Your task to perform on an android device: move a message to another label in the gmail app Image 0: 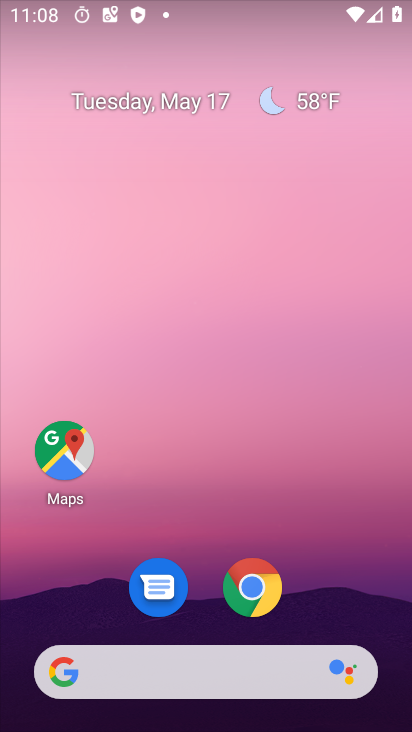
Step 0: press back button
Your task to perform on an android device: move a message to another label in the gmail app Image 1: 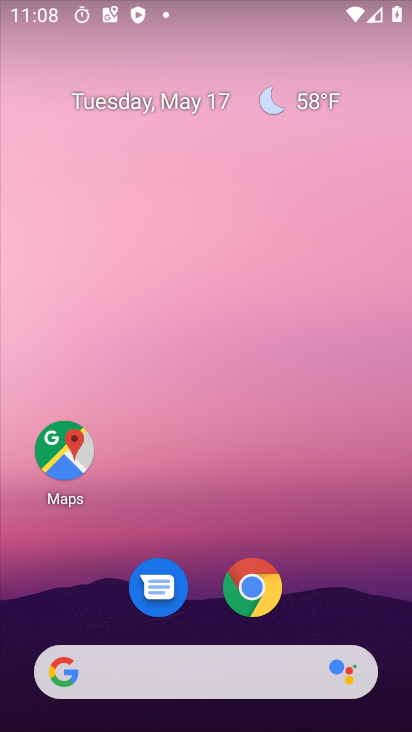
Step 1: drag from (329, 558) to (279, 62)
Your task to perform on an android device: move a message to another label in the gmail app Image 2: 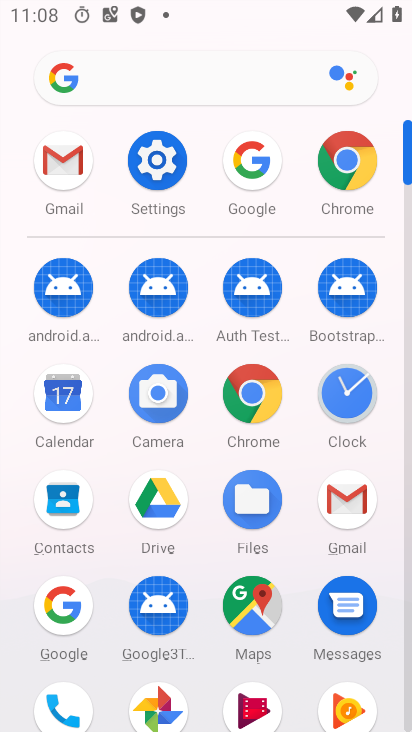
Step 2: click (59, 161)
Your task to perform on an android device: move a message to another label in the gmail app Image 3: 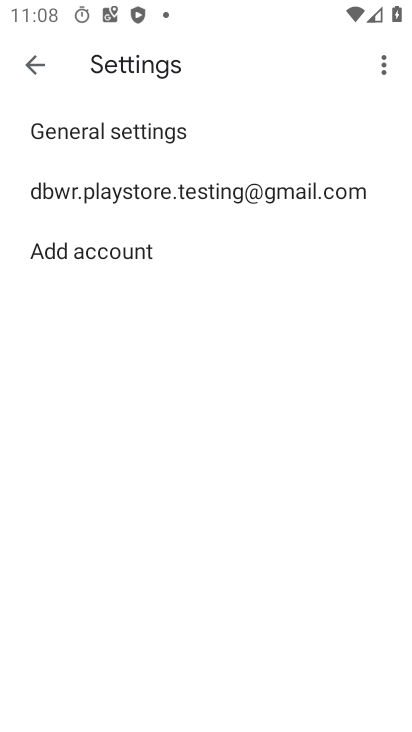
Step 3: press back button
Your task to perform on an android device: move a message to another label in the gmail app Image 4: 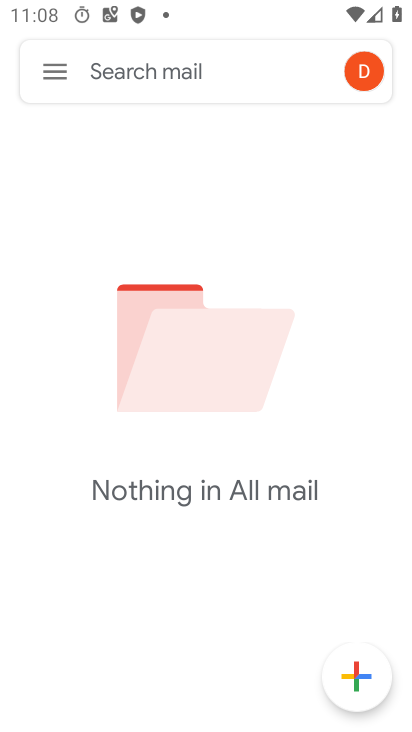
Step 4: click (58, 69)
Your task to perform on an android device: move a message to another label in the gmail app Image 5: 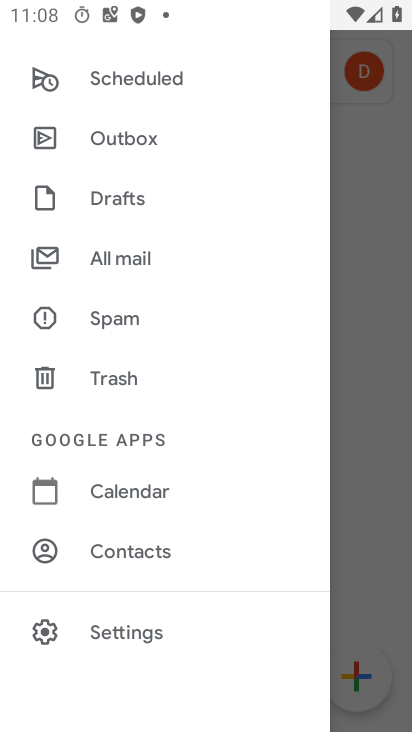
Step 5: click (129, 249)
Your task to perform on an android device: move a message to another label in the gmail app Image 6: 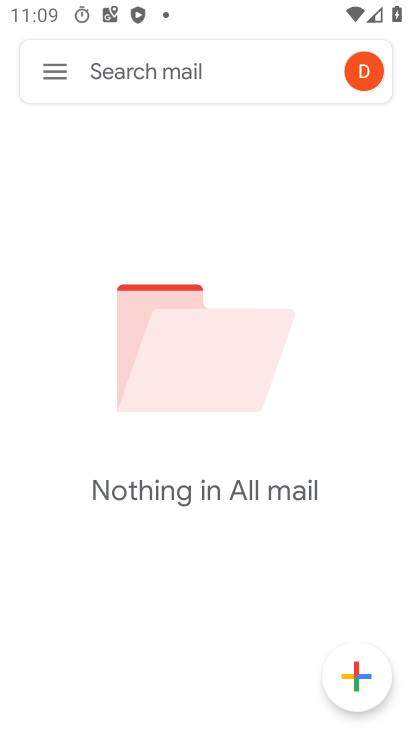
Step 6: click (67, 72)
Your task to perform on an android device: move a message to another label in the gmail app Image 7: 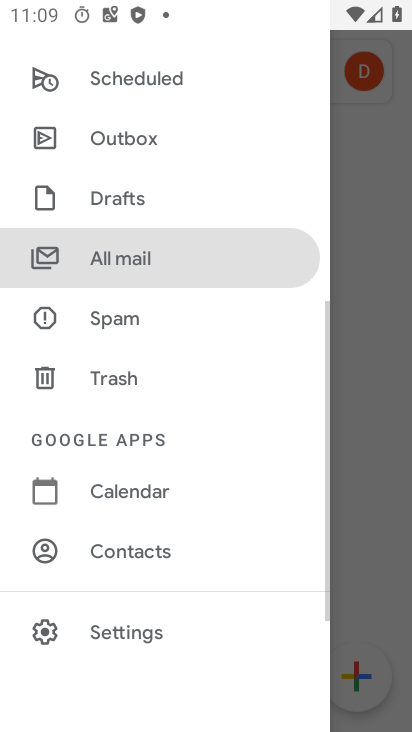
Step 7: drag from (138, 172) to (144, 243)
Your task to perform on an android device: move a message to another label in the gmail app Image 8: 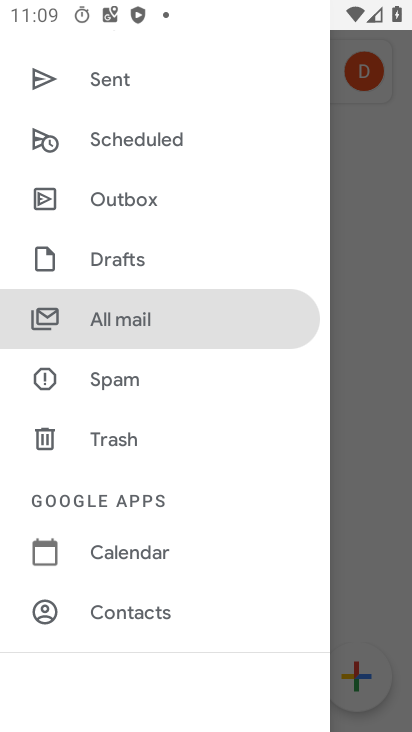
Step 8: drag from (159, 151) to (173, 246)
Your task to perform on an android device: move a message to another label in the gmail app Image 9: 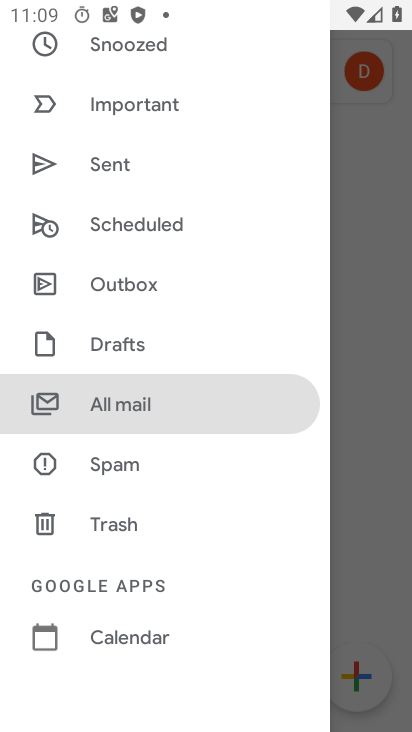
Step 9: drag from (160, 146) to (152, 251)
Your task to perform on an android device: move a message to another label in the gmail app Image 10: 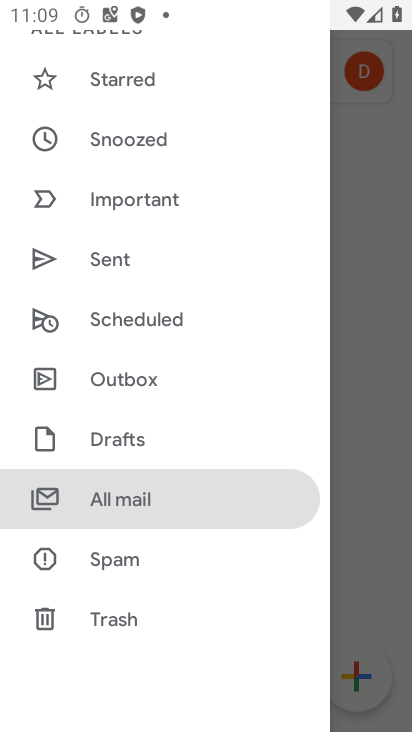
Step 10: drag from (145, 160) to (143, 243)
Your task to perform on an android device: move a message to another label in the gmail app Image 11: 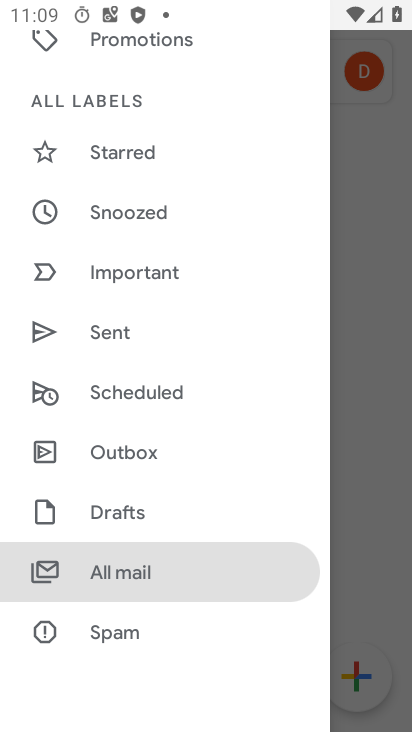
Step 11: drag from (132, 111) to (145, 209)
Your task to perform on an android device: move a message to another label in the gmail app Image 12: 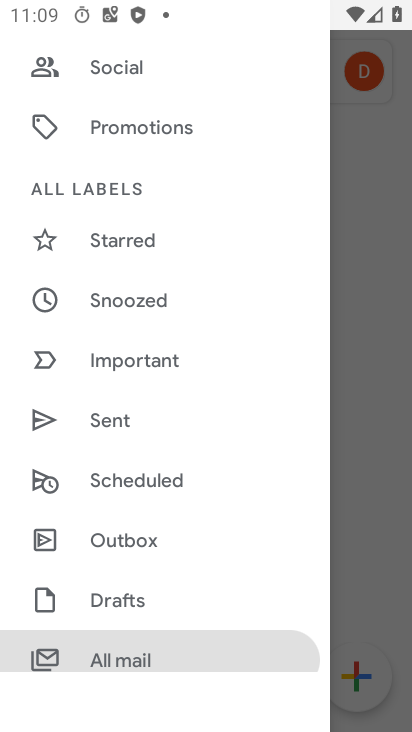
Step 12: drag from (147, 108) to (149, 220)
Your task to perform on an android device: move a message to another label in the gmail app Image 13: 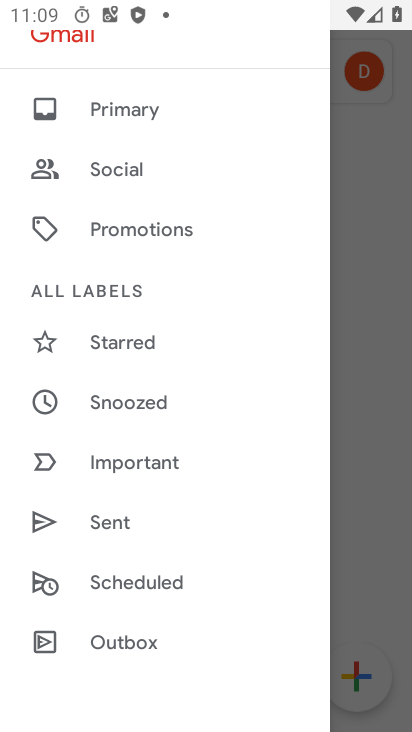
Step 13: click (140, 99)
Your task to perform on an android device: move a message to another label in the gmail app Image 14: 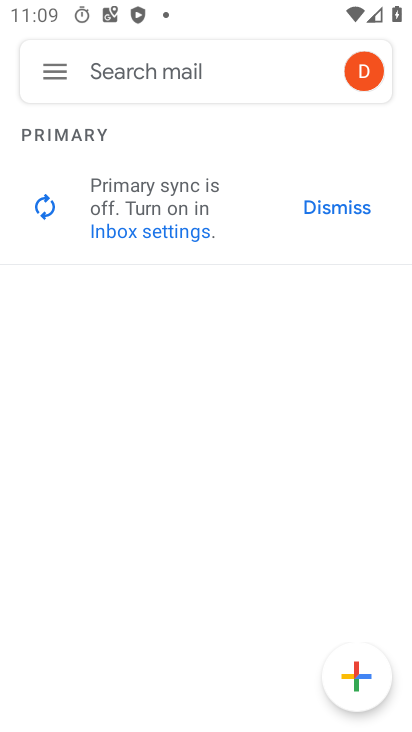
Step 14: task complete